Your task to perform on an android device: Is it going to rain tomorrow? Image 0: 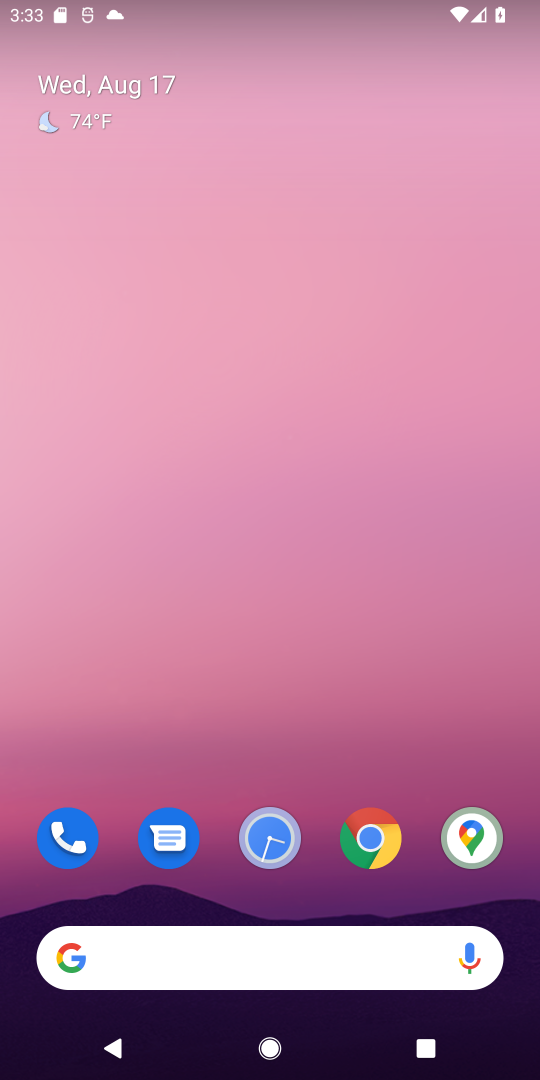
Step 0: drag from (207, 890) to (248, 301)
Your task to perform on an android device: Is it going to rain tomorrow? Image 1: 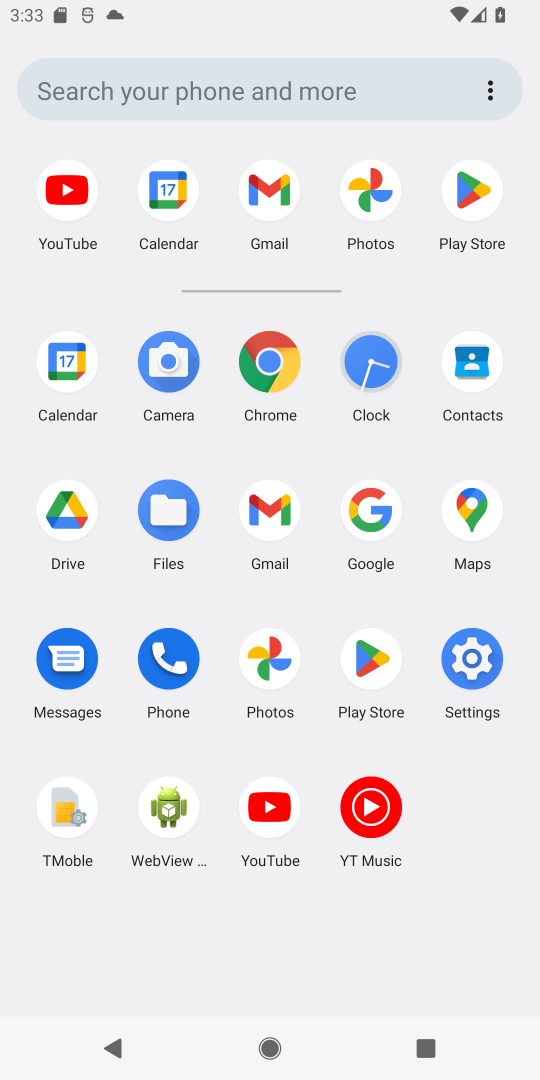
Step 1: click (60, 368)
Your task to perform on an android device: Is it going to rain tomorrow? Image 2: 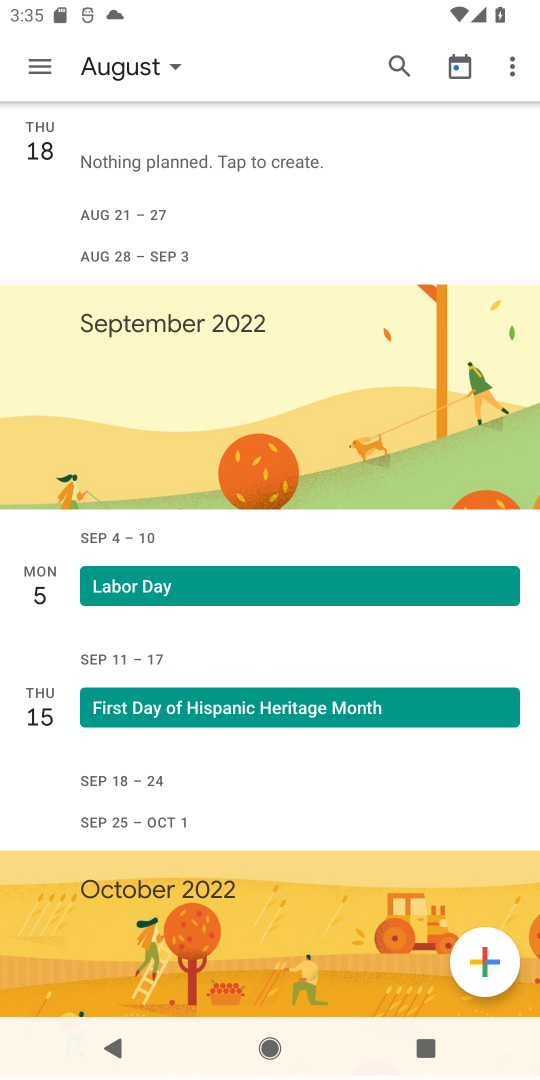
Step 2: press home button
Your task to perform on an android device: Is it going to rain tomorrow? Image 3: 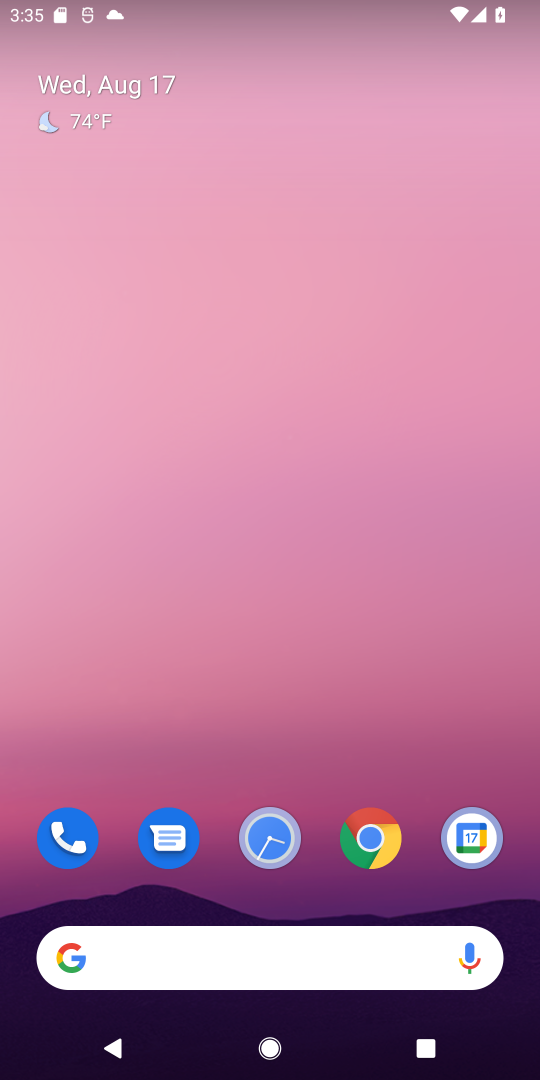
Step 3: drag from (128, 584) to (96, 288)
Your task to perform on an android device: Is it going to rain tomorrow? Image 4: 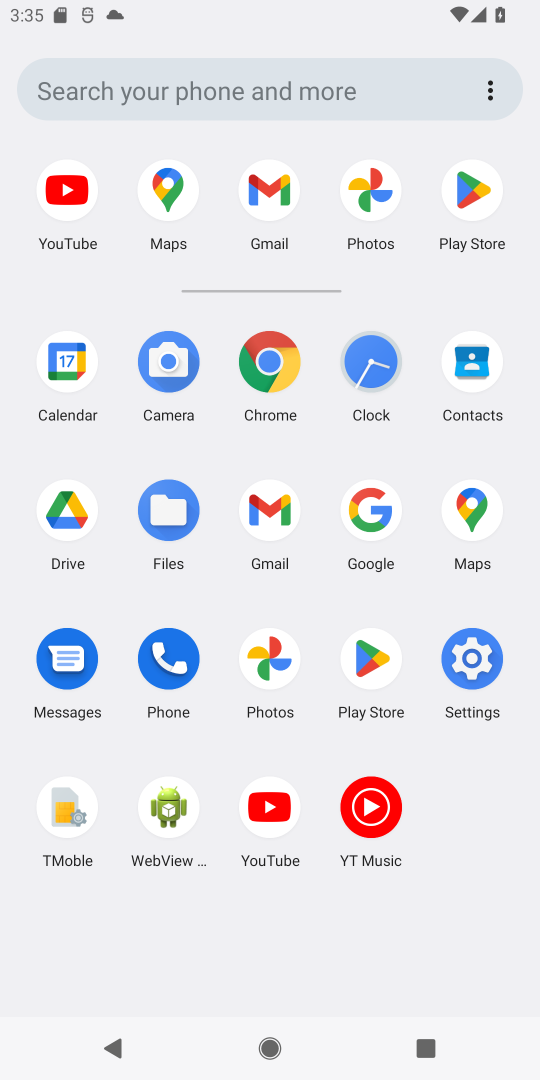
Step 4: click (382, 516)
Your task to perform on an android device: Is it going to rain tomorrow? Image 5: 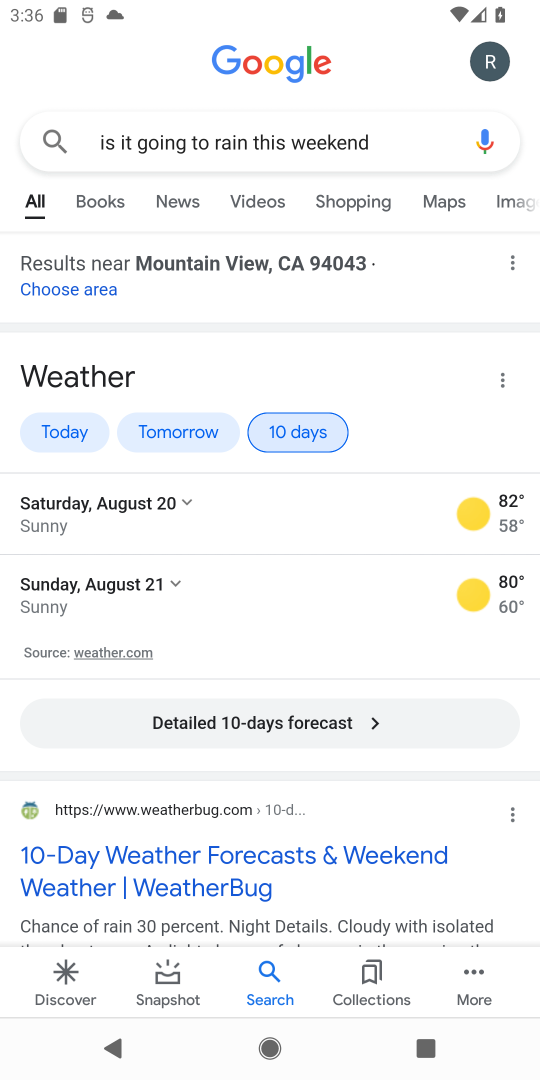
Step 5: click (181, 155)
Your task to perform on an android device: Is it going to rain tomorrow? Image 6: 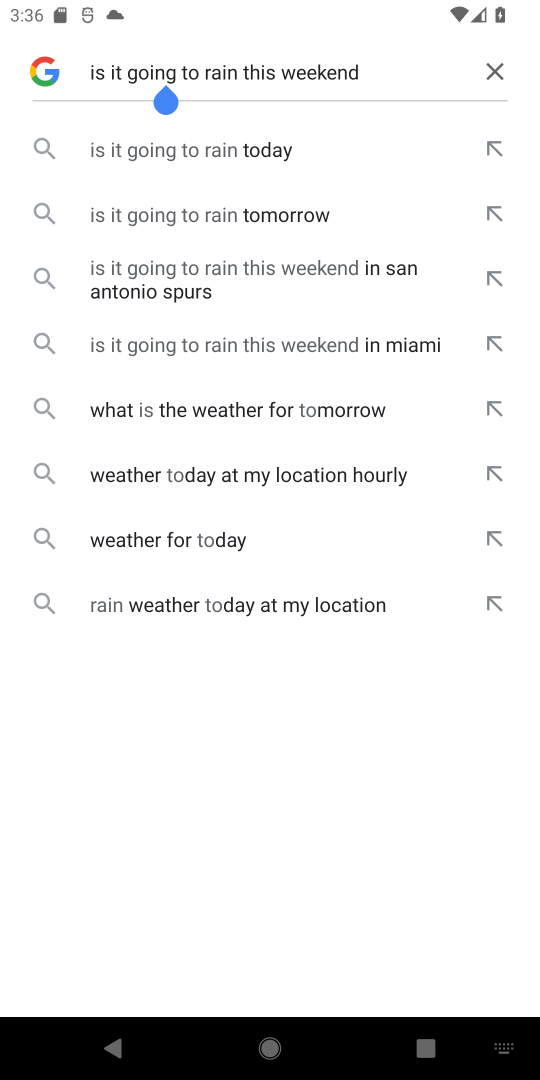
Step 6: click (489, 78)
Your task to perform on an android device: Is it going to rain tomorrow? Image 7: 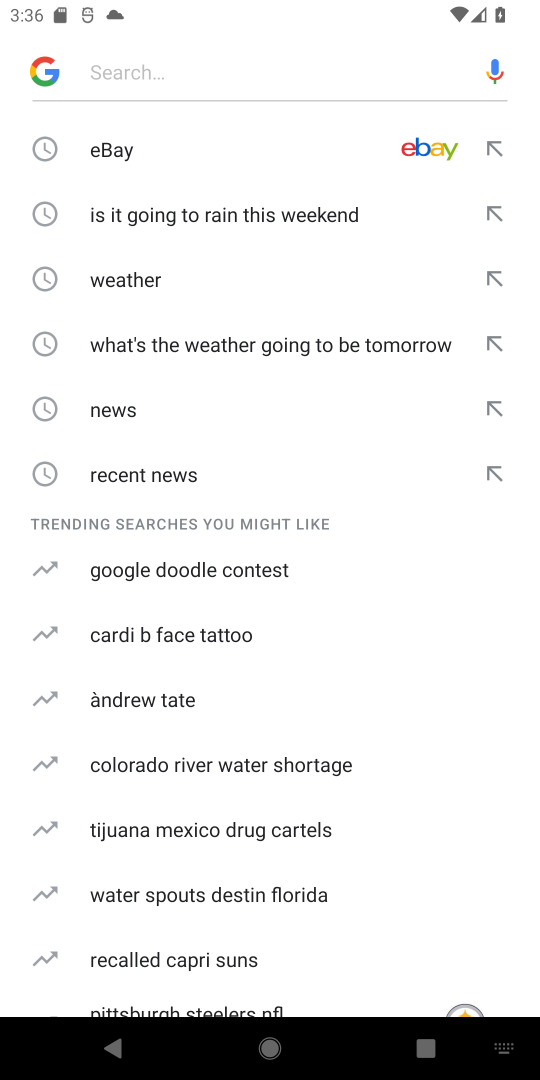
Step 7: click (151, 206)
Your task to perform on an android device: Is it going to rain tomorrow? Image 8: 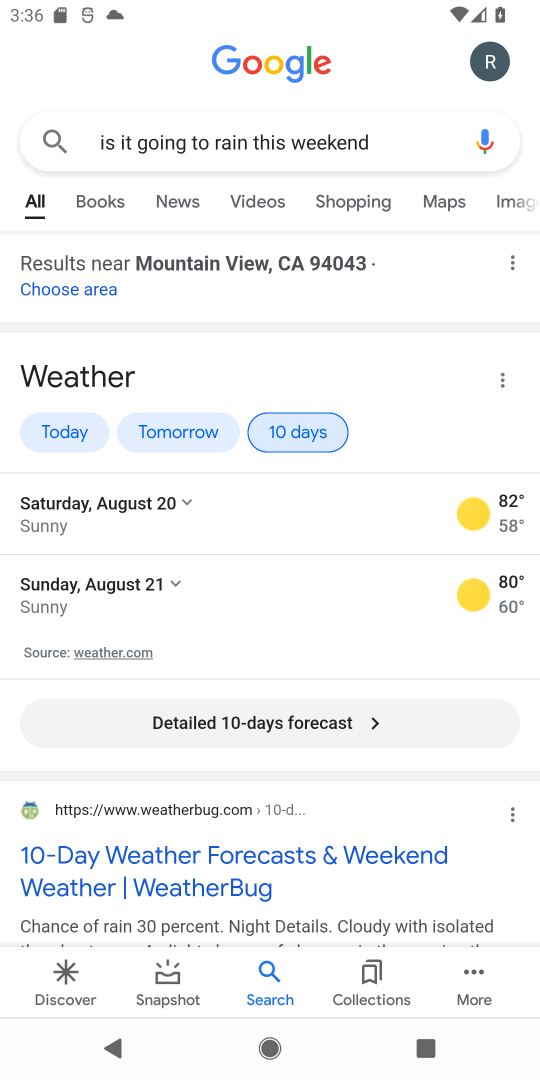
Step 8: click (200, 423)
Your task to perform on an android device: Is it going to rain tomorrow? Image 9: 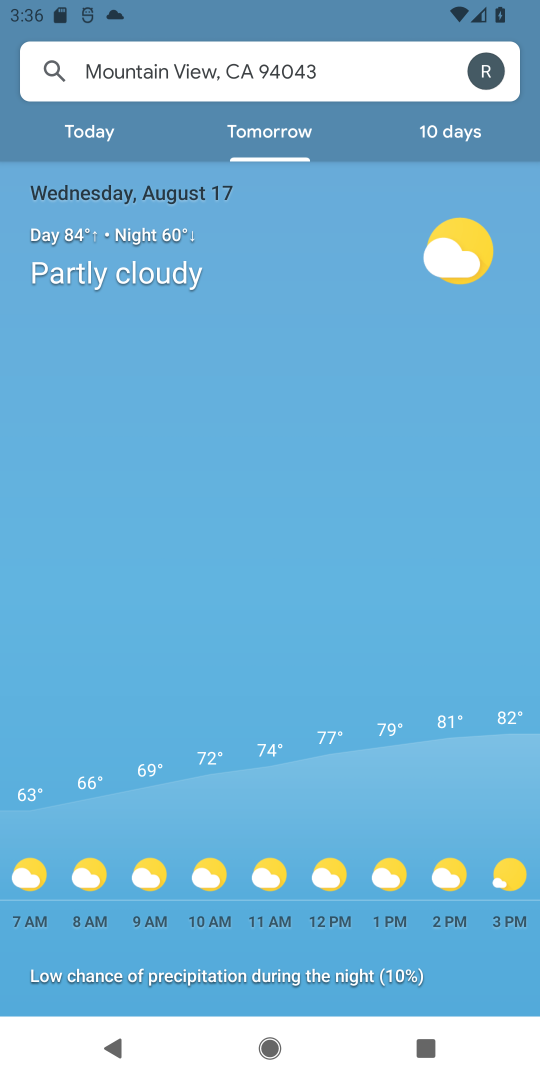
Step 9: task complete